Your task to perform on an android device: Clear all items from cart on amazon.com. Search for "razer kraken" on amazon.com, select the first entry, and add it to the cart. Image 0: 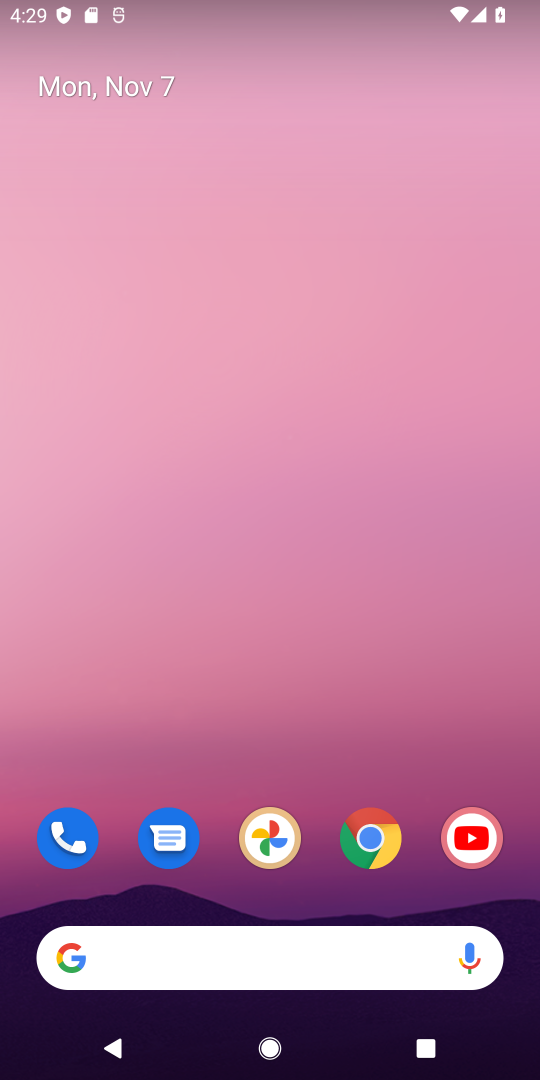
Step 0: click (367, 851)
Your task to perform on an android device: Clear all items from cart on amazon.com. Search for "razer kraken" on amazon.com, select the first entry, and add it to the cart. Image 1: 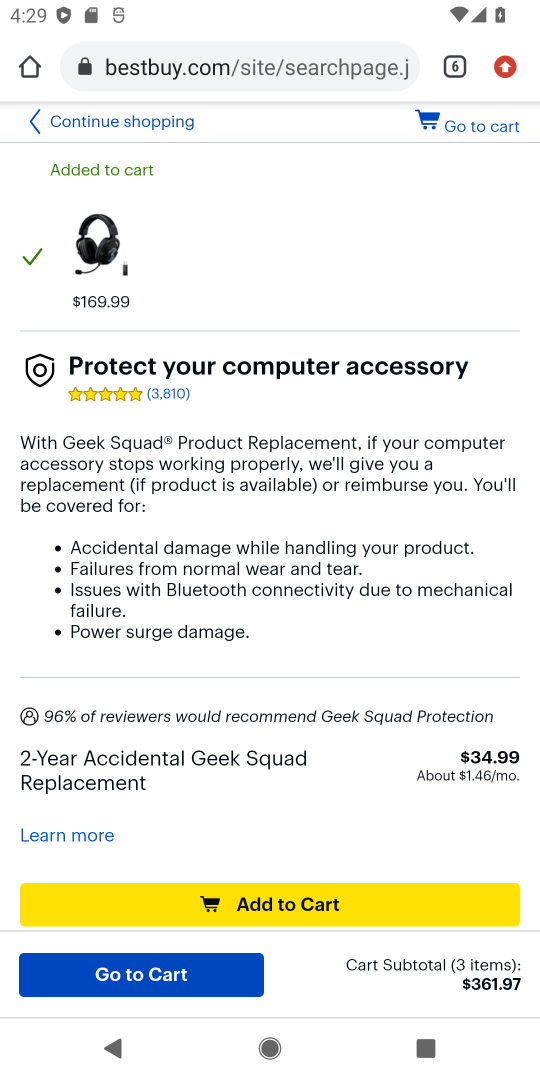
Step 1: click (452, 62)
Your task to perform on an android device: Clear all items from cart on amazon.com. Search for "razer kraken" on amazon.com, select the first entry, and add it to the cart. Image 2: 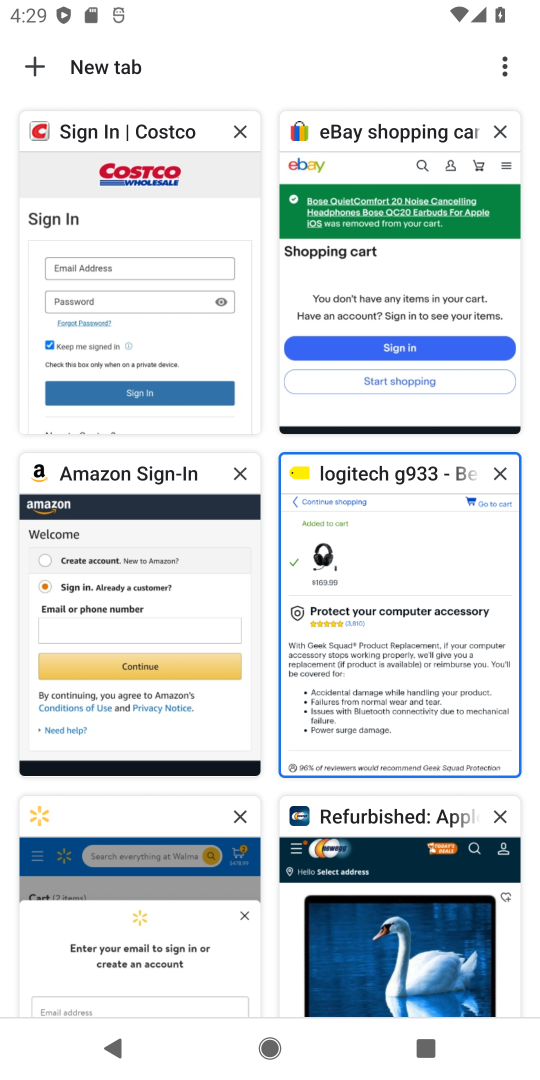
Step 2: click (136, 525)
Your task to perform on an android device: Clear all items from cart on amazon.com. Search for "razer kraken" on amazon.com, select the first entry, and add it to the cart. Image 3: 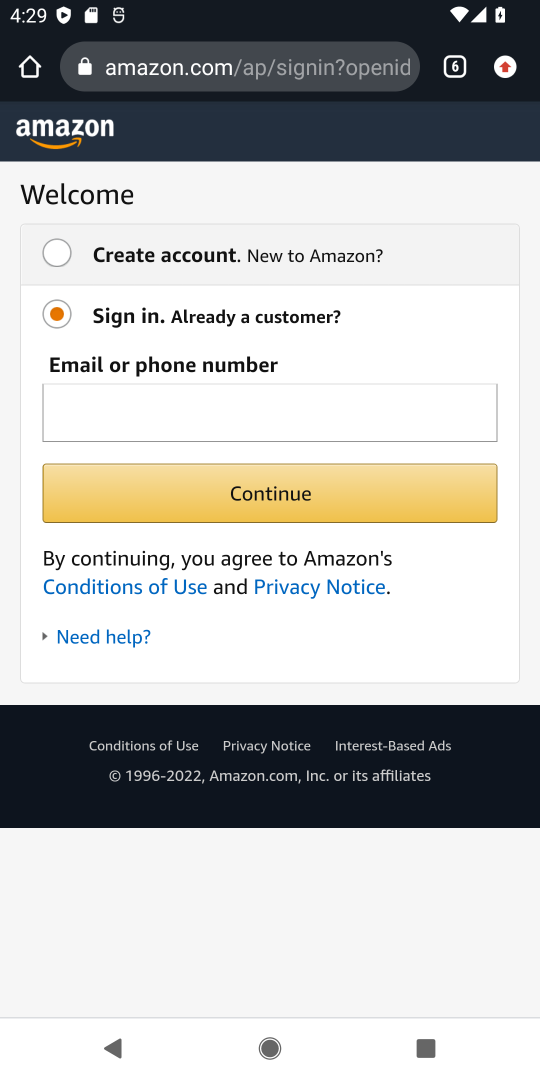
Step 3: press back button
Your task to perform on an android device: Clear all items from cart on amazon.com. Search for "razer kraken" on amazon.com, select the first entry, and add it to the cart. Image 4: 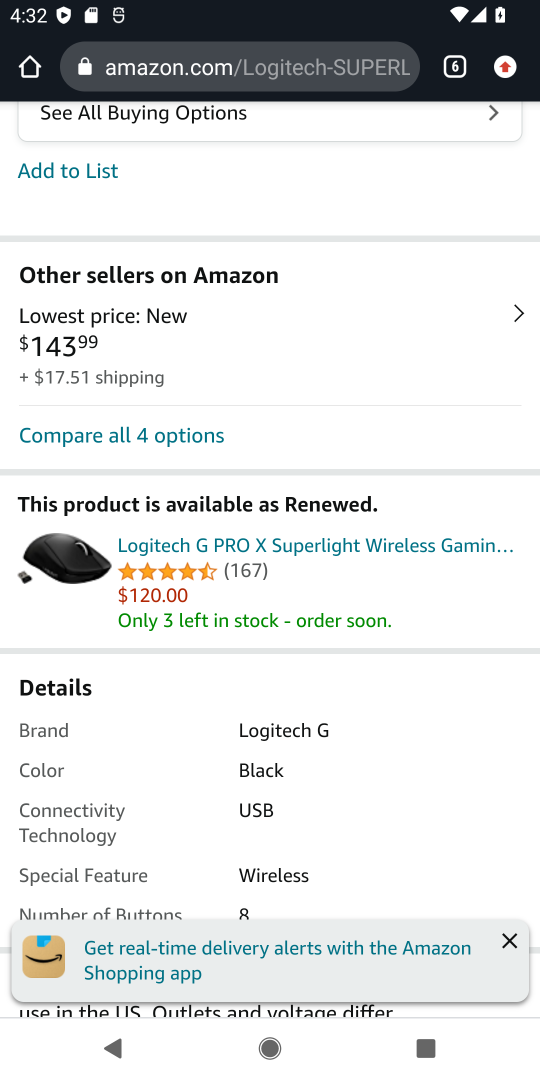
Step 4: drag from (359, 736) to (472, 357)
Your task to perform on an android device: Clear all items from cart on amazon.com. Search for "razer kraken" on amazon.com, select the first entry, and add it to the cart. Image 5: 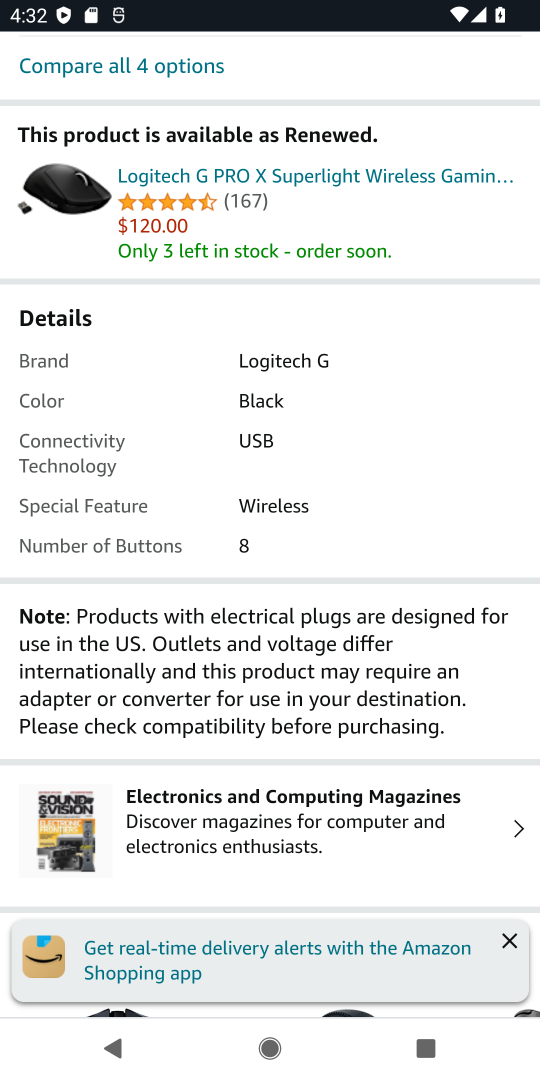
Step 5: drag from (375, 421) to (322, 911)
Your task to perform on an android device: Clear all items from cart on amazon.com. Search for "razer kraken" on amazon.com, select the first entry, and add it to the cart. Image 6: 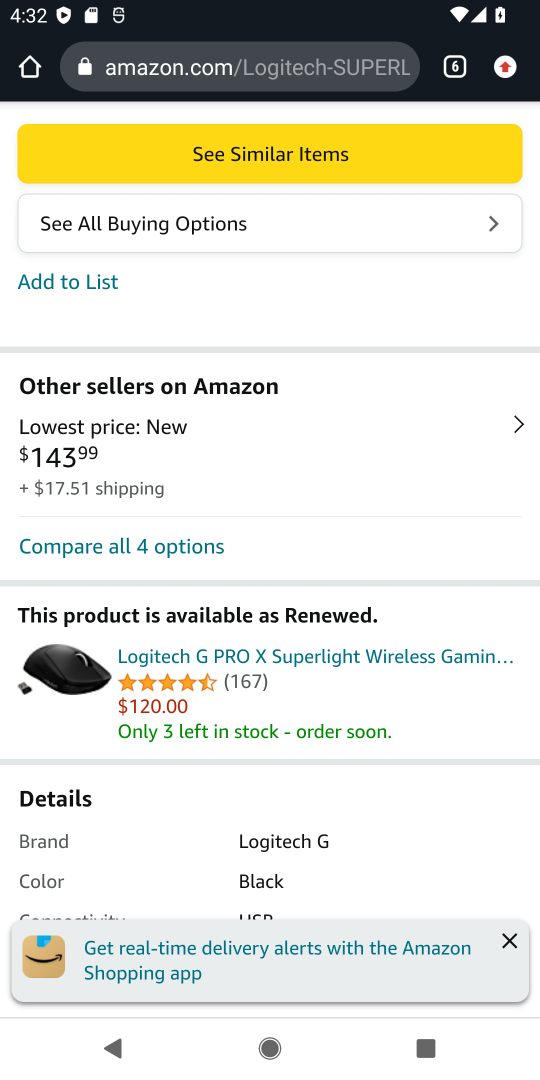
Step 6: click (93, 277)
Your task to perform on an android device: Clear all items from cart on amazon.com. Search for "razer kraken" on amazon.com, select the first entry, and add it to the cart. Image 7: 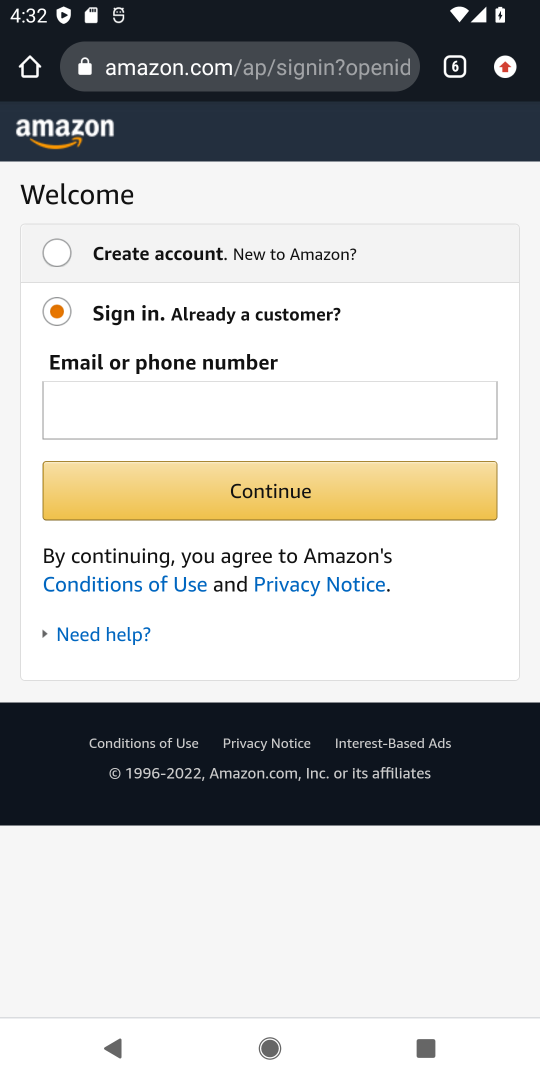
Step 7: task complete